Your task to perform on an android device: Open settings on Google Maps Image 0: 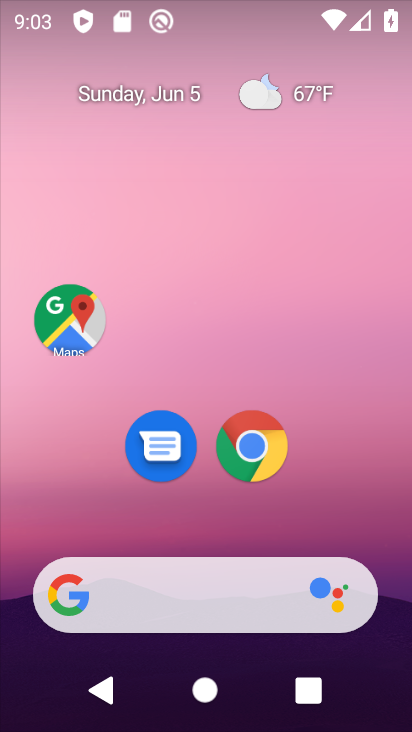
Step 0: click (61, 342)
Your task to perform on an android device: Open settings on Google Maps Image 1: 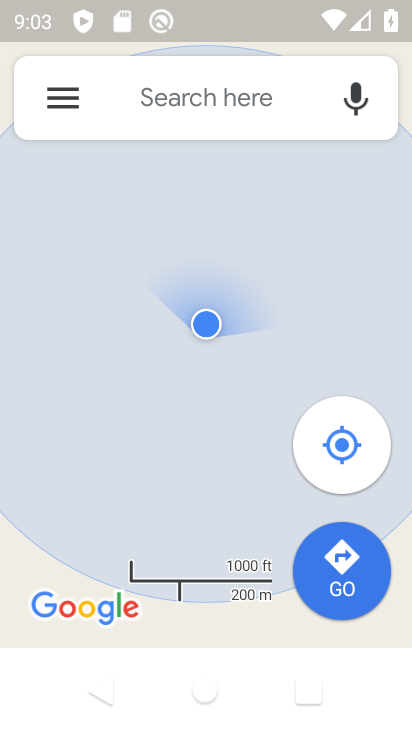
Step 1: click (57, 95)
Your task to perform on an android device: Open settings on Google Maps Image 2: 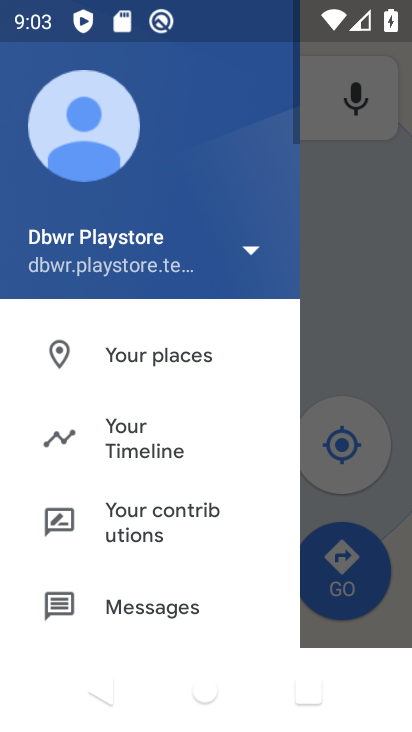
Step 2: drag from (112, 562) to (157, 172)
Your task to perform on an android device: Open settings on Google Maps Image 3: 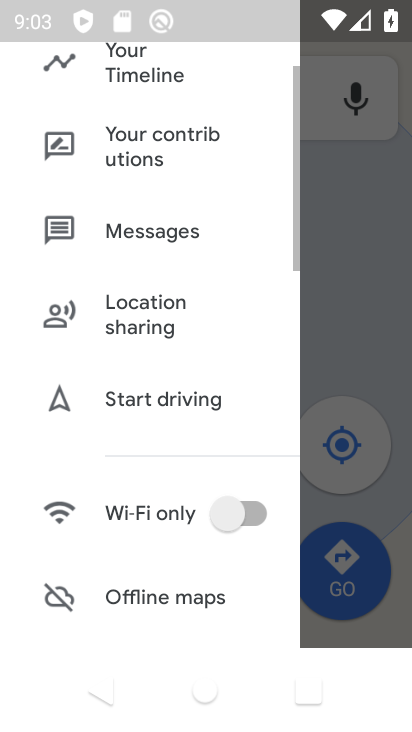
Step 3: drag from (125, 577) to (150, 266)
Your task to perform on an android device: Open settings on Google Maps Image 4: 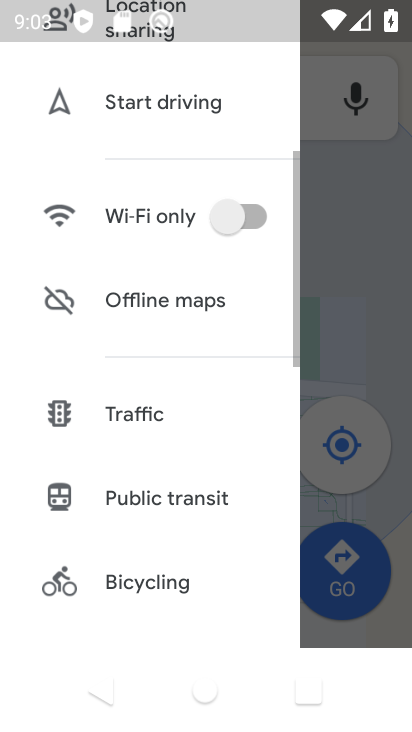
Step 4: drag from (152, 580) to (165, 304)
Your task to perform on an android device: Open settings on Google Maps Image 5: 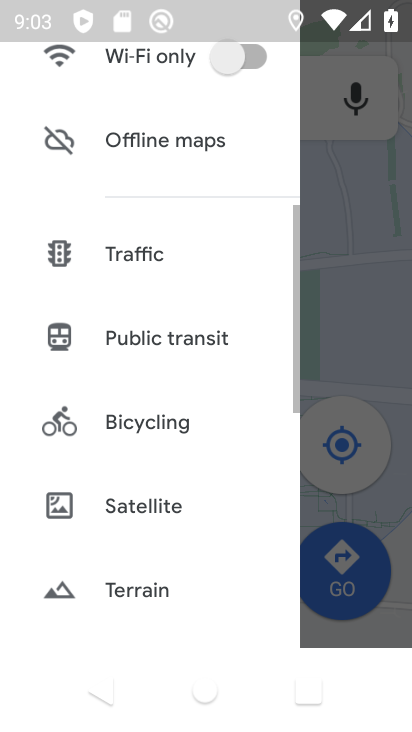
Step 5: drag from (135, 593) to (151, 312)
Your task to perform on an android device: Open settings on Google Maps Image 6: 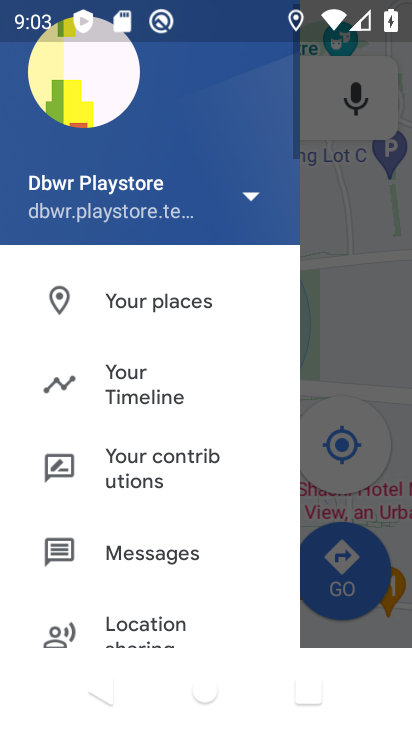
Step 6: drag from (137, 584) to (127, 186)
Your task to perform on an android device: Open settings on Google Maps Image 7: 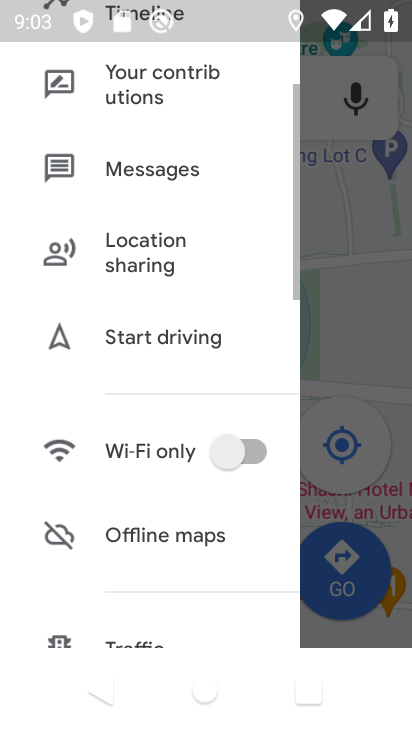
Step 7: drag from (131, 579) to (131, 277)
Your task to perform on an android device: Open settings on Google Maps Image 8: 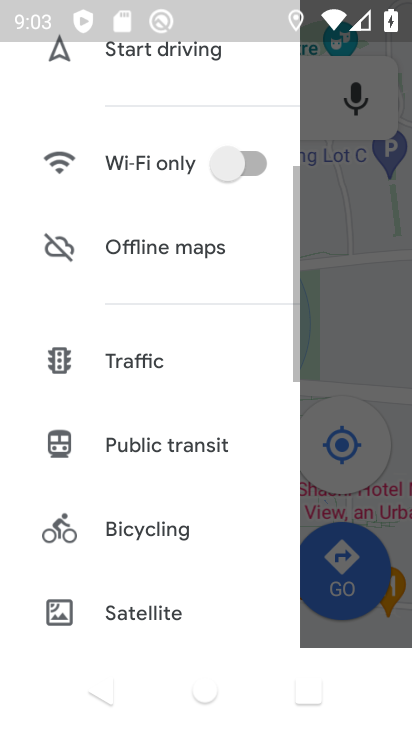
Step 8: drag from (117, 556) to (126, 279)
Your task to perform on an android device: Open settings on Google Maps Image 9: 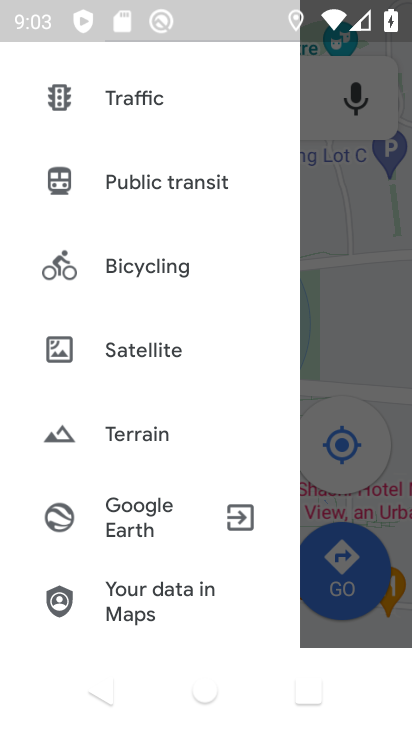
Step 9: drag from (134, 611) to (126, 272)
Your task to perform on an android device: Open settings on Google Maps Image 10: 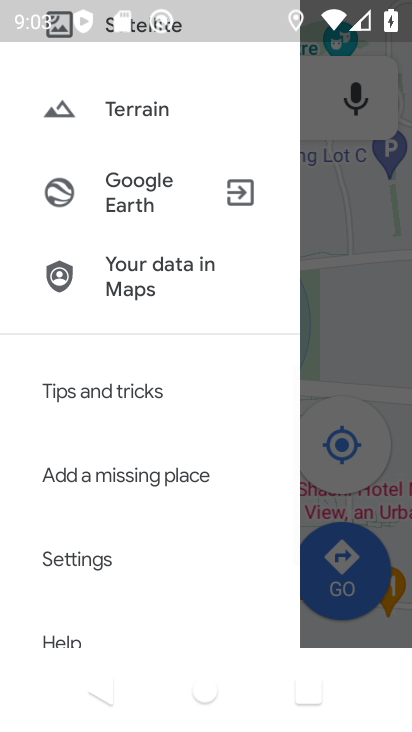
Step 10: click (102, 562)
Your task to perform on an android device: Open settings on Google Maps Image 11: 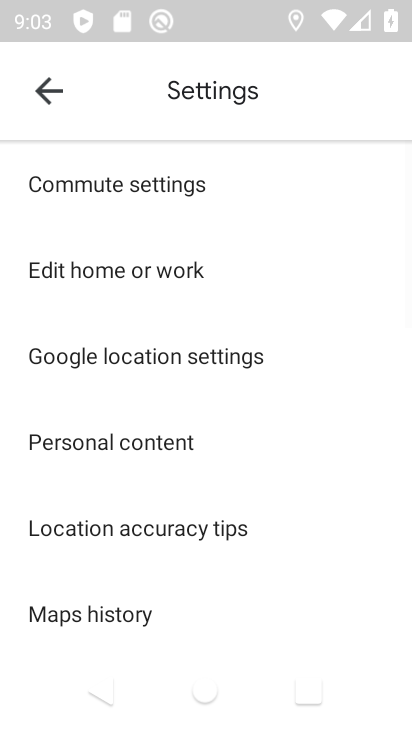
Step 11: task complete